Your task to perform on an android device: What's on my calendar today? Image 0: 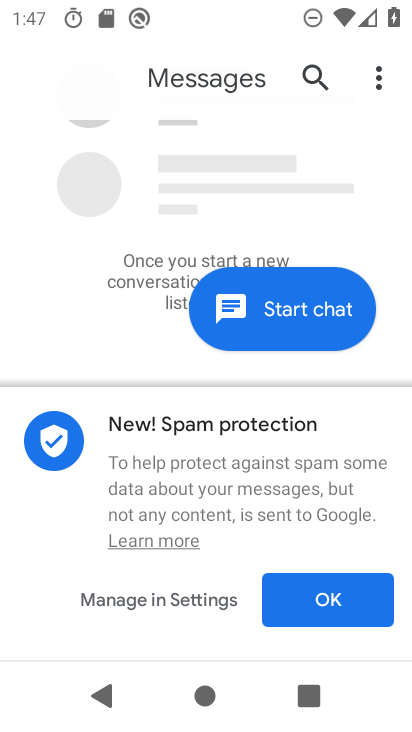
Step 0: press home button
Your task to perform on an android device: What's on my calendar today? Image 1: 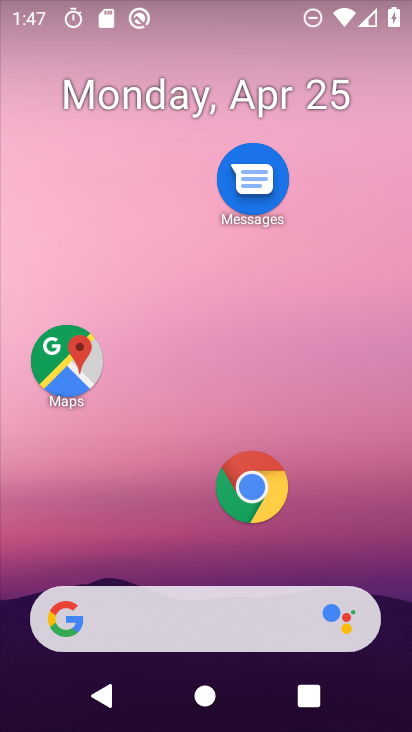
Step 1: drag from (135, 537) to (215, 10)
Your task to perform on an android device: What's on my calendar today? Image 2: 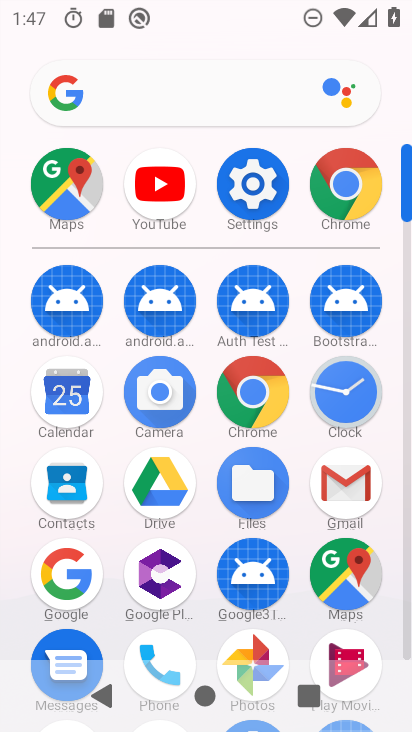
Step 2: click (73, 392)
Your task to perform on an android device: What's on my calendar today? Image 3: 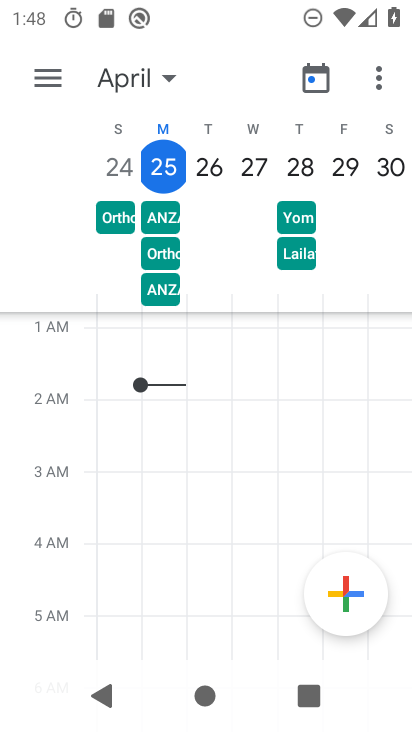
Step 3: click (166, 153)
Your task to perform on an android device: What's on my calendar today? Image 4: 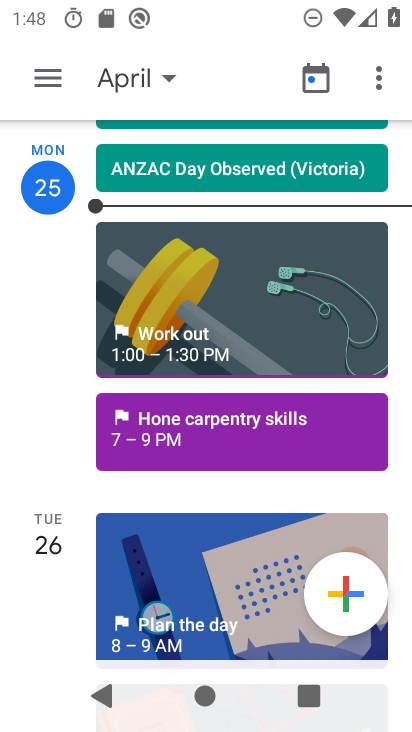
Step 4: task complete